Your task to perform on an android device: open device folders in google photos Image 0: 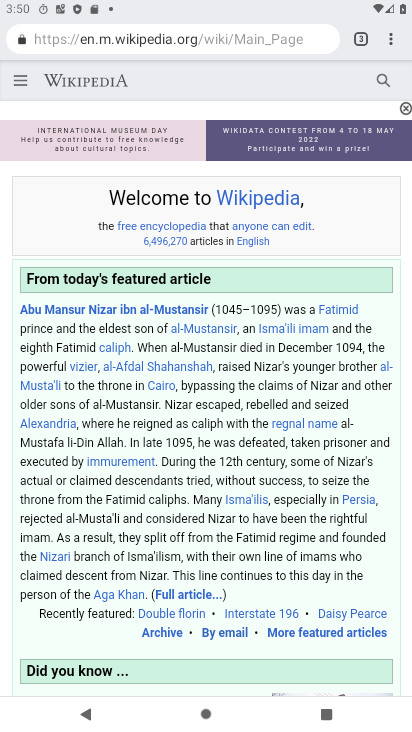
Step 0: press home button
Your task to perform on an android device: open device folders in google photos Image 1: 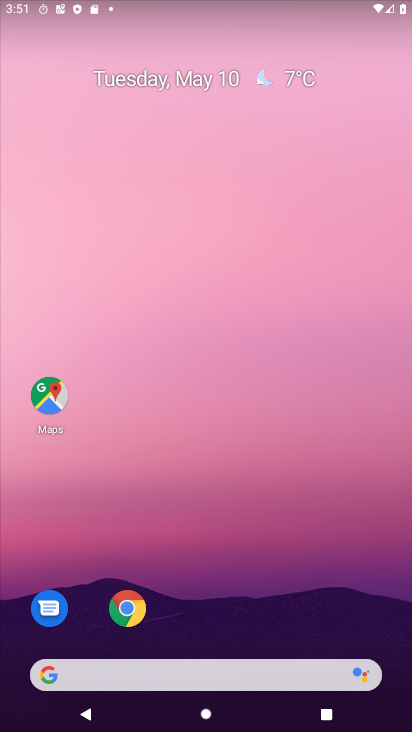
Step 1: drag from (287, 620) to (282, 10)
Your task to perform on an android device: open device folders in google photos Image 2: 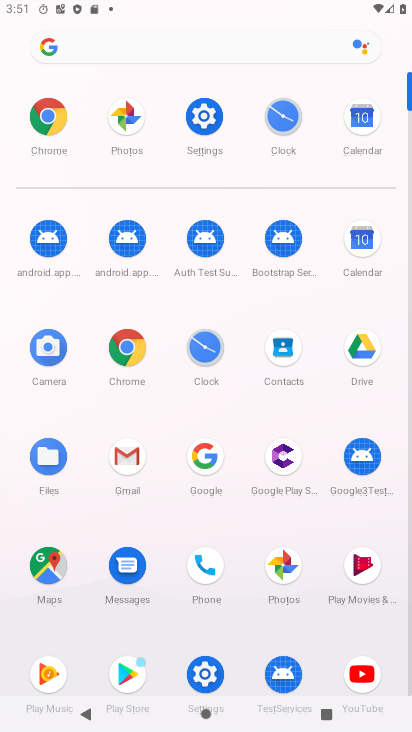
Step 2: click (129, 117)
Your task to perform on an android device: open device folders in google photos Image 3: 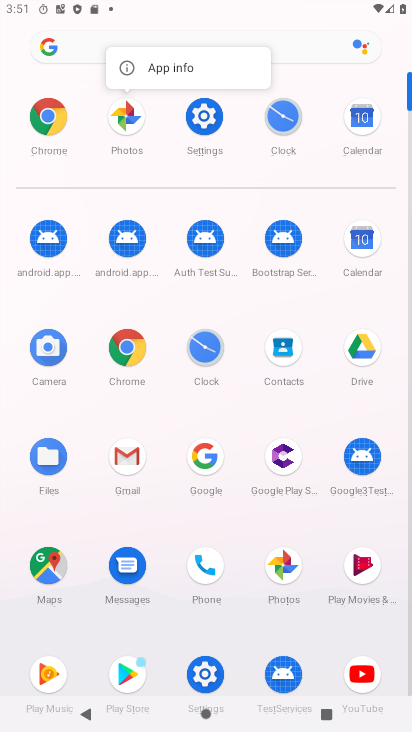
Step 3: click (125, 122)
Your task to perform on an android device: open device folders in google photos Image 4: 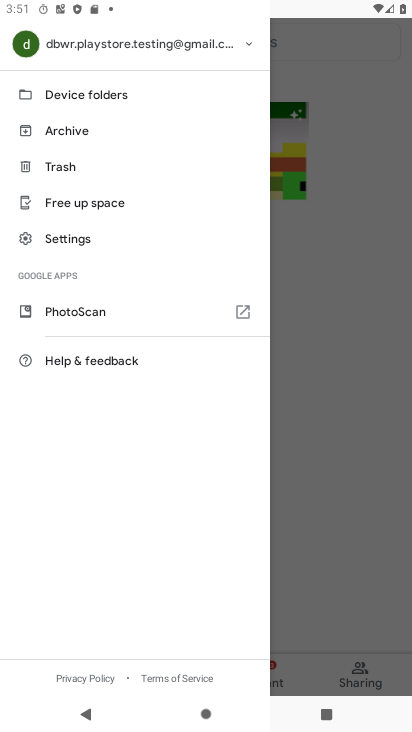
Step 4: click (65, 104)
Your task to perform on an android device: open device folders in google photos Image 5: 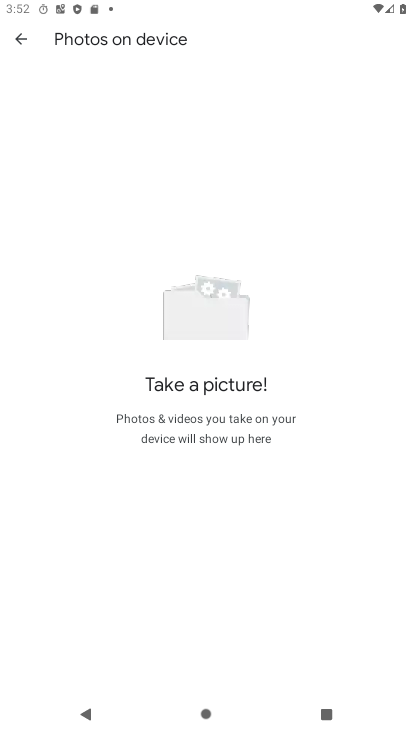
Step 5: task complete